Your task to perform on an android device: turn off wifi Image 0: 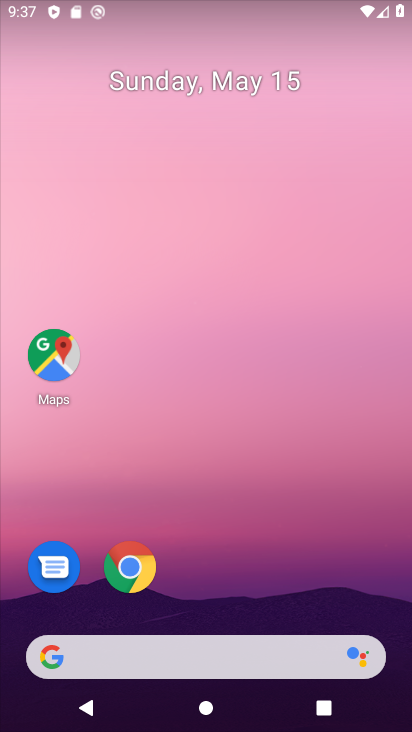
Step 0: drag from (226, 600) to (217, 134)
Your task to perform on an android device: turn off wifi Image 1: 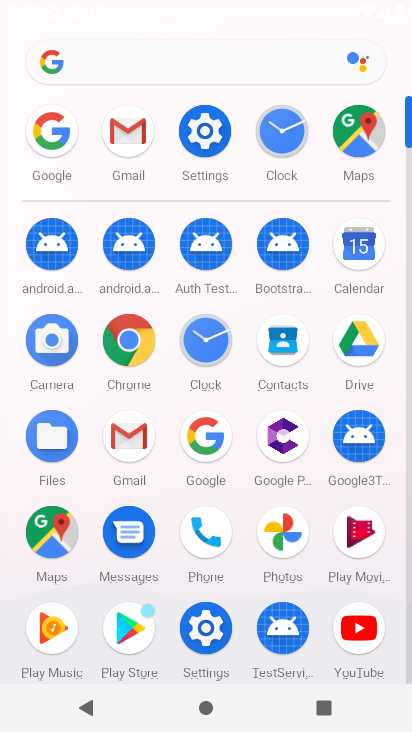
Step 1: click (204, 131)
Your task to perform on an android device: turn off wifi Image 2: 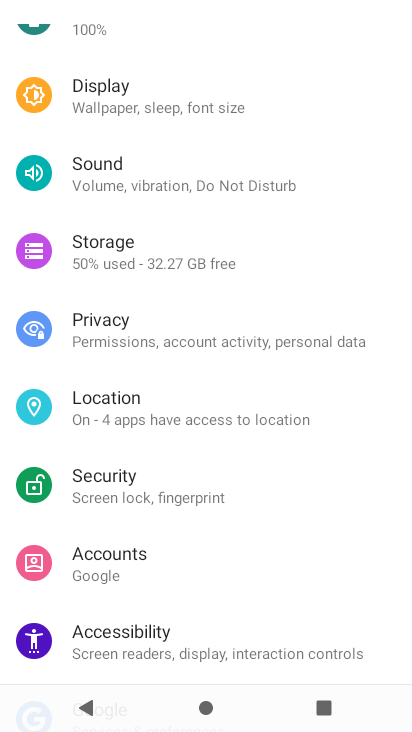
Step 2: drag from (181, 132) to (238, 575)
Your task to perform on an android device: turn off wifi Image 3: 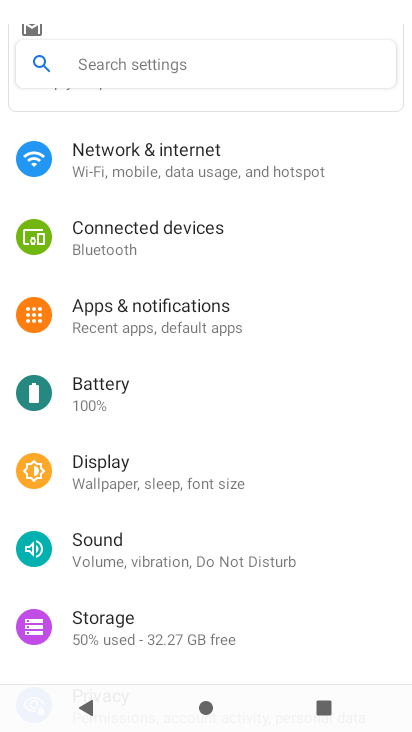
Step 3: click (166, 156)
Your task to perform on an android device: turn off wifi Image 4: 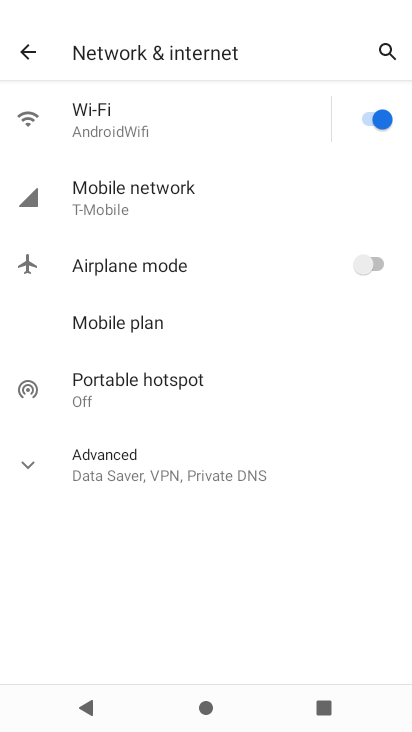
Step 4: click (382, 117)
Your task to perform on an android device: turn off wifi Image 5: 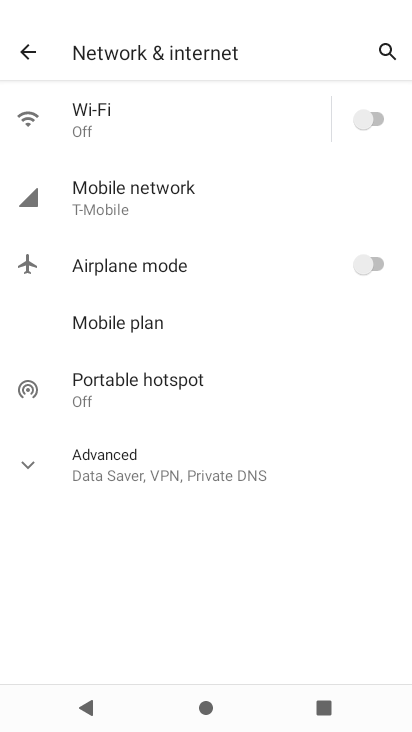
Step 5: task complete